Your task to perform on an android device: Open calendar and show me the fourth week of next month Image 0: 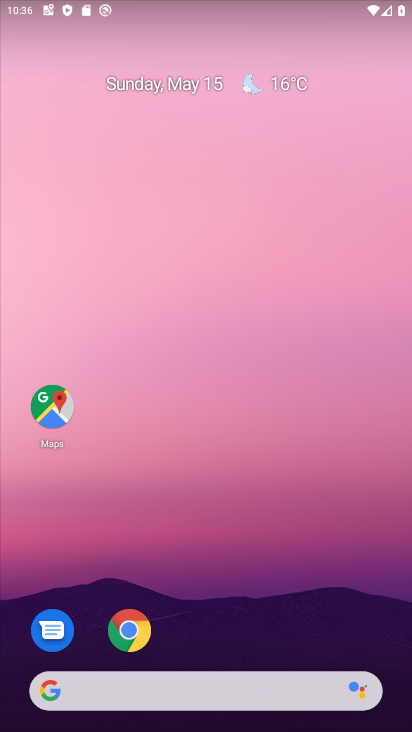
Step 0: drag from (211, 638) to (186, 145)
Your task to perform on an android device: Open calendar and show me the fourth week of next month Image 1: 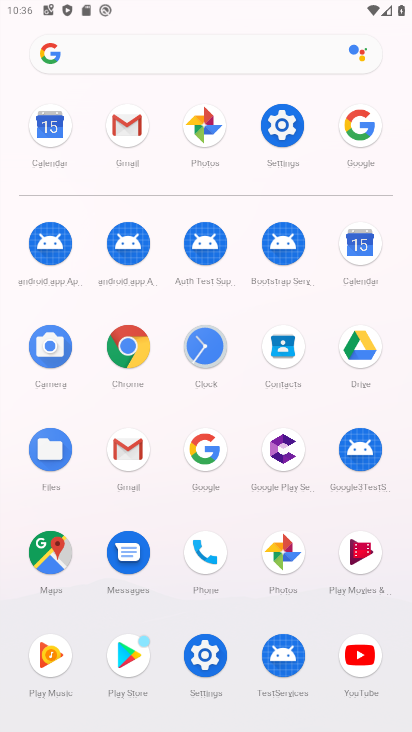
Step 1: click (346, 241)
Your task to perform on an android device: Open calendar and show me the fourth week of next month Image 2: 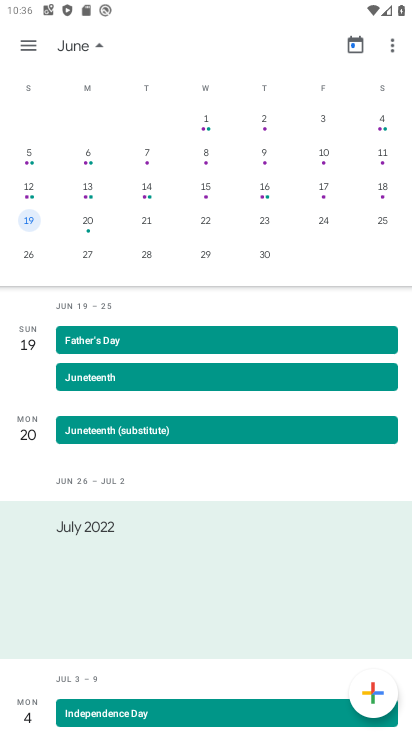
Step 2: click (96, 38)
Your task to perform on an android device: Open calendar and show me the fourth week of next month Image 3: 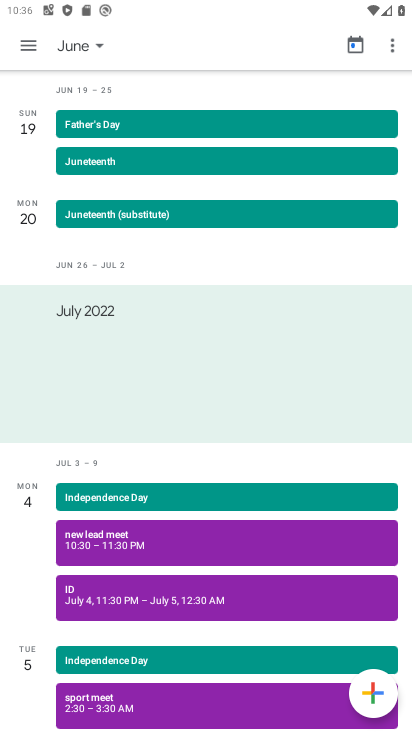
Step 3: click (95, 39)
Your task to perform on an android device: Open calendar and show me the fourth week of next month Image 4: 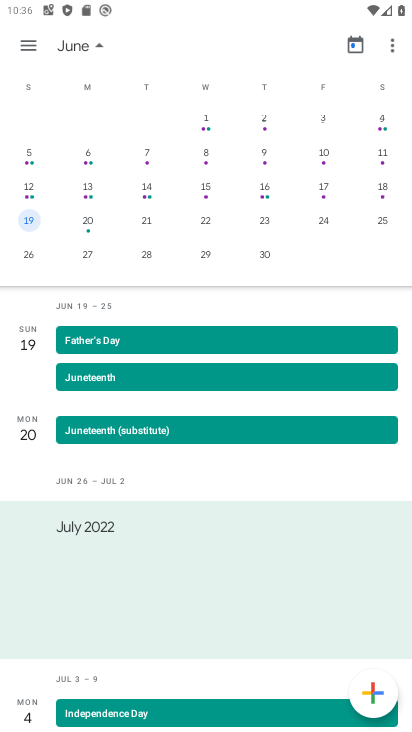
Step 4: click (32, 217)
Your task to perform on an android device: Open calendar and show me the fourth week of next month Image 5: 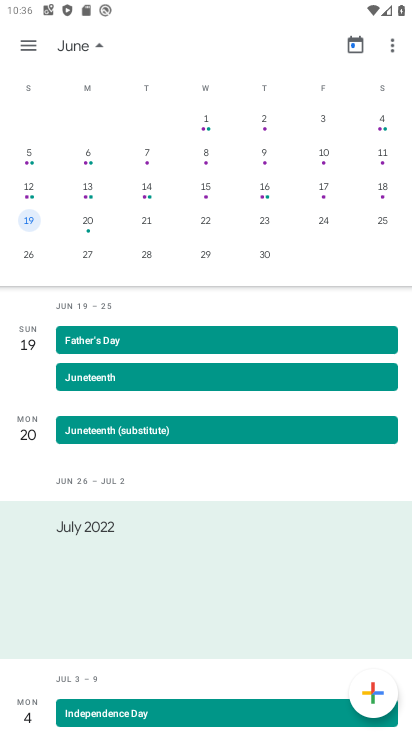
Step 5: task complete